Your task to perform on an android device: Go to notification settings Image 0: 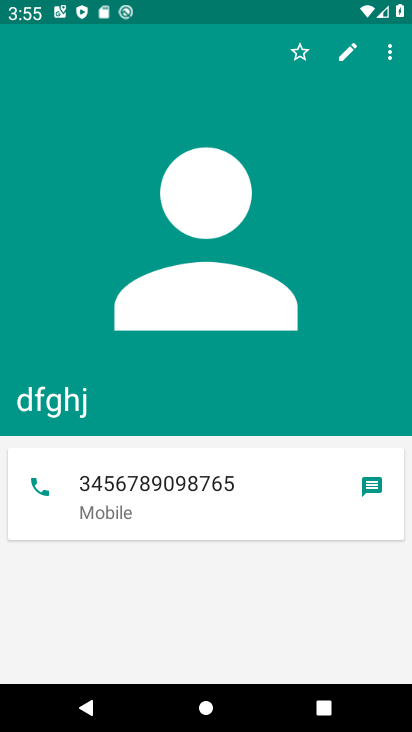
Step 0: press back button
Your task to perform on an android device: Go to notification settings Image 1: 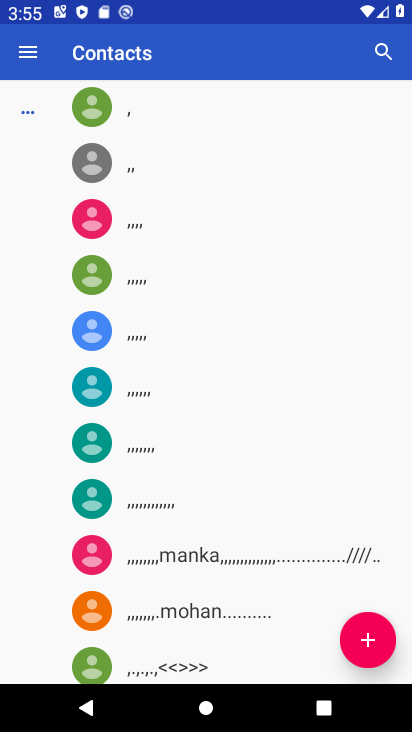
Step 1: press back button
Your task to perform on an android device: Go to notification settings Image 2: 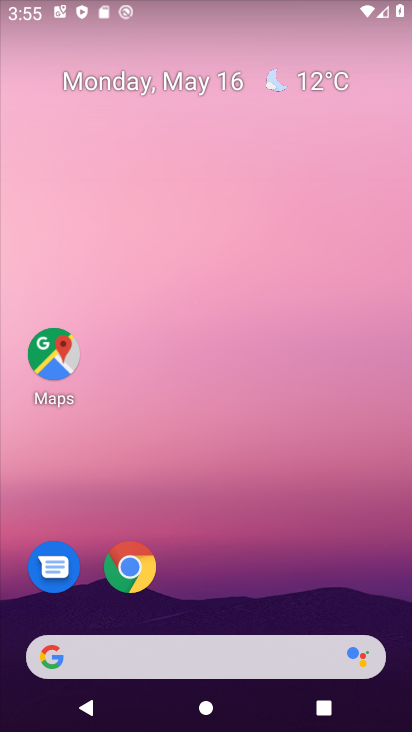
Step 2: drag from (278, 597) to (268, 105)
Your task to perform on an android device: Go to notification settings Image 3: 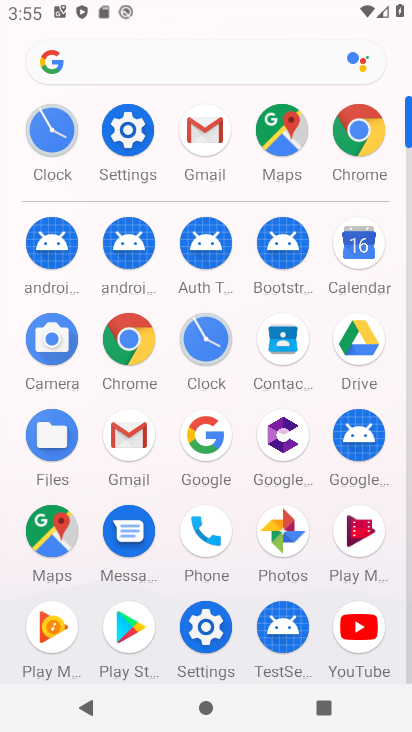
Step 3: click (205, 633)
Your task to perform on an android device: Go to notification settings Image 4: 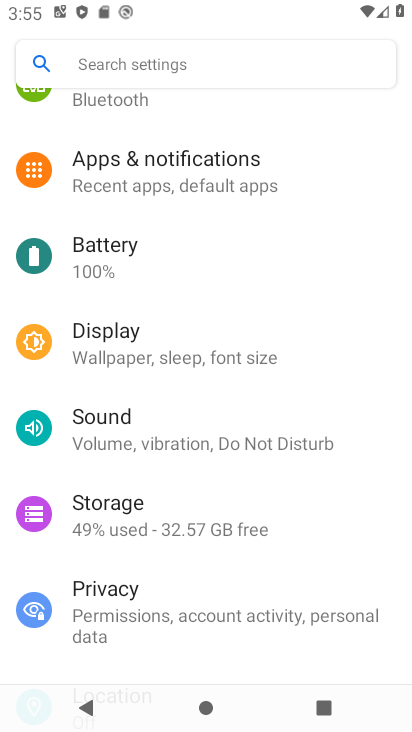
Step 4: click (194, 156)
Your task to perform on an android device: Go to notification settings Image 5: 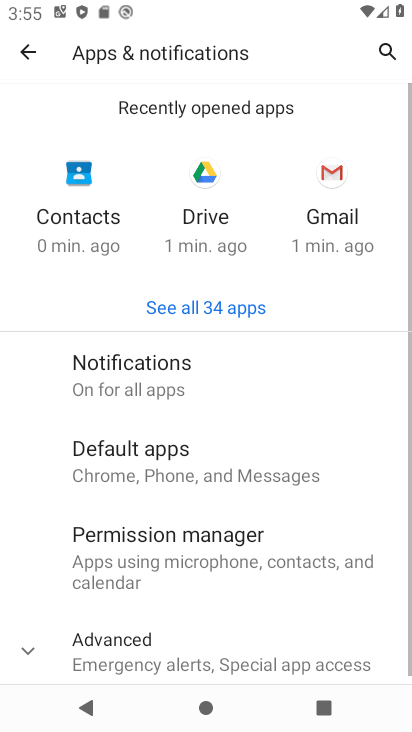
Step 5: click (26, 649)
Your task to perform on an android device: Go to notification settings Image 6: 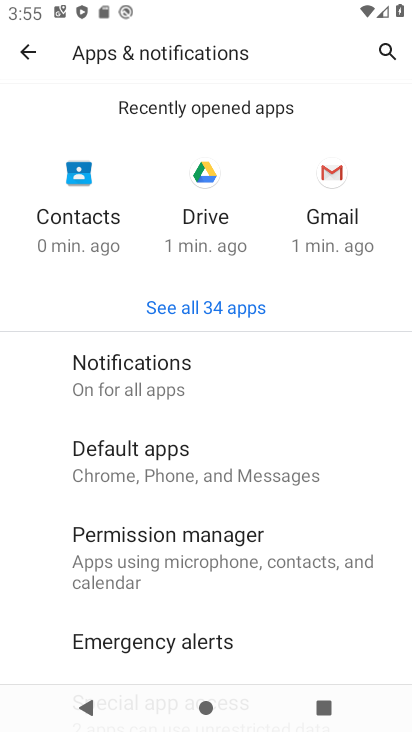
Step 6: click (213, 368)
Your task to perform on an android device: Go to notification settings Image 7: 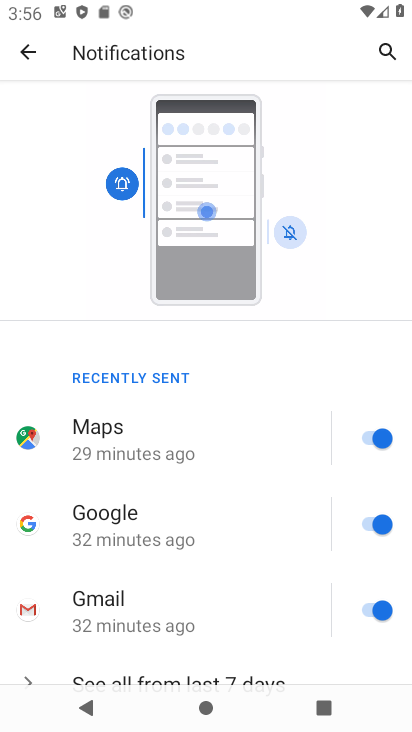
Step 7: task complete